Your task to perform on an android device: Check the news Image 0: 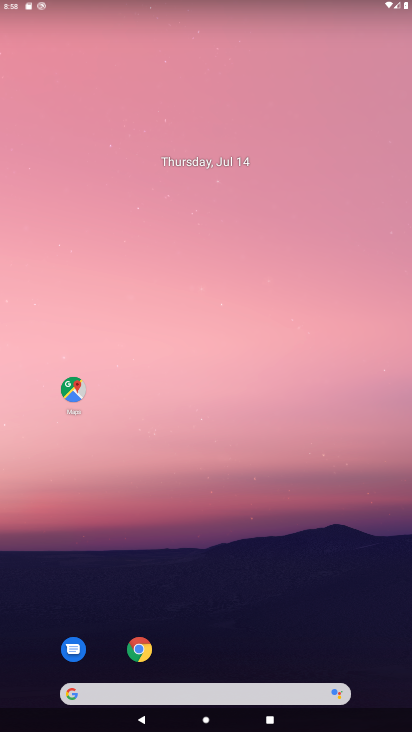
Step 0: drag from (235, 607) to (282, 6)
Your task to perform on an android device: Check the news Image 1: 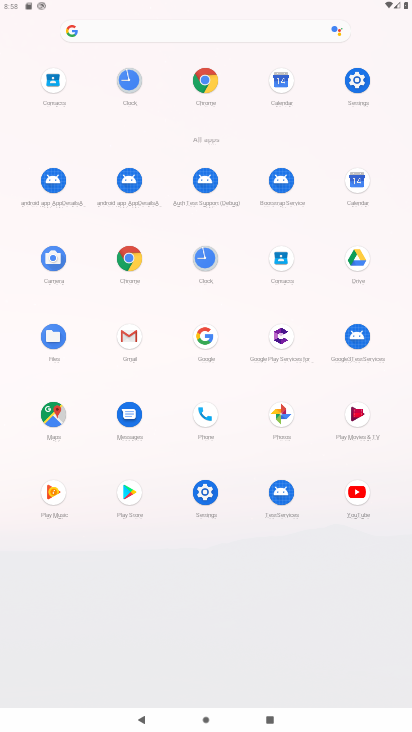
Step 1: click (188, 19)
Your task to perform on an android device: Check the news Image 2: 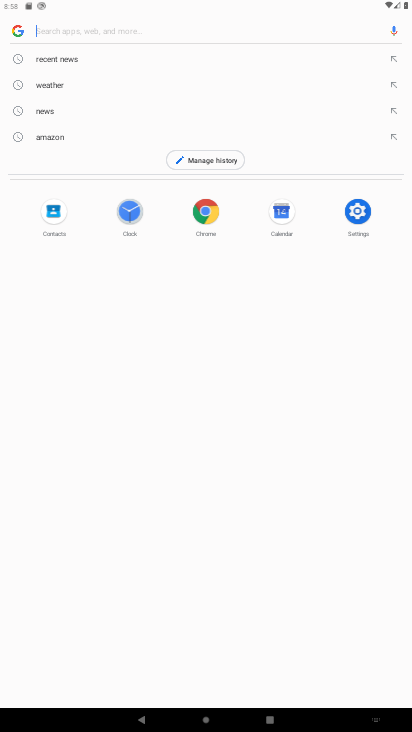
Step 2: type "news"
Your task to perform on an android device: Check the news Image 3: 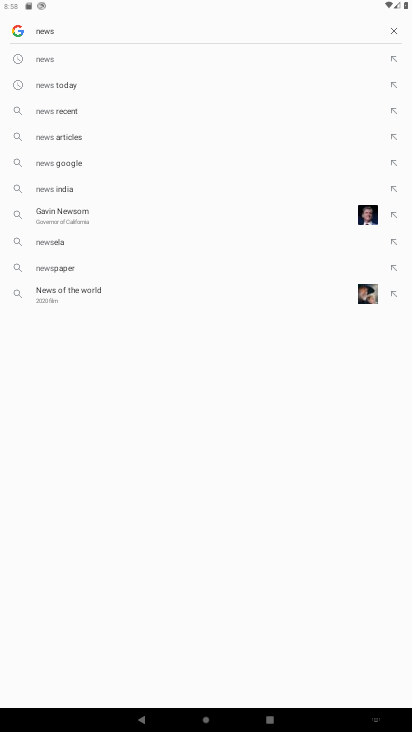
Step 3: click (52, 61)
Your task to perform on an android device: Check the news Image 4: 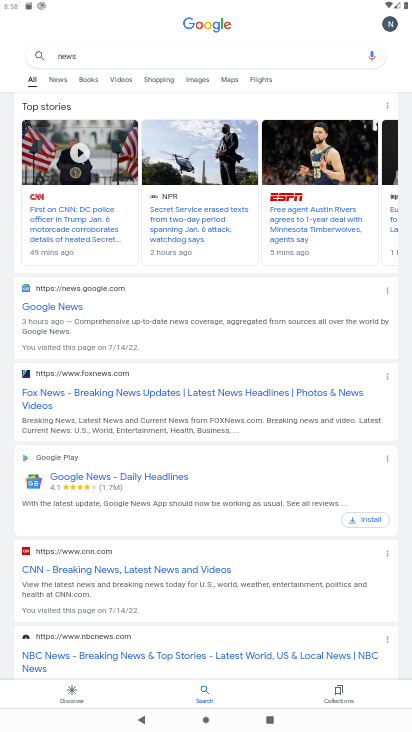
Step 4: task complete